Your task to perform on an android device: Go to location settings Image 0: 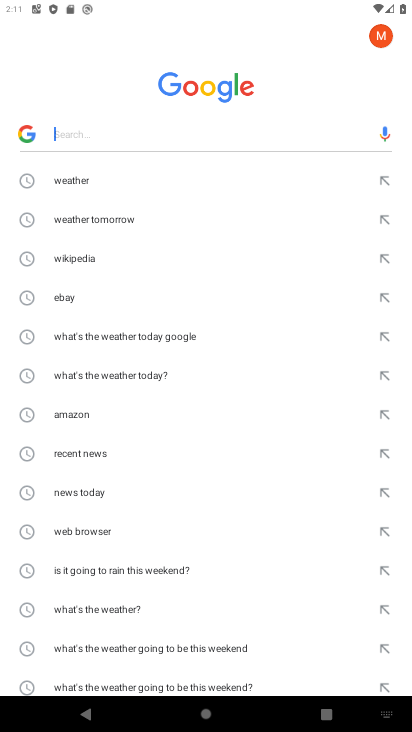
Step 0: press home button
Your task to perform on an android device: Go to location settings Image 1: 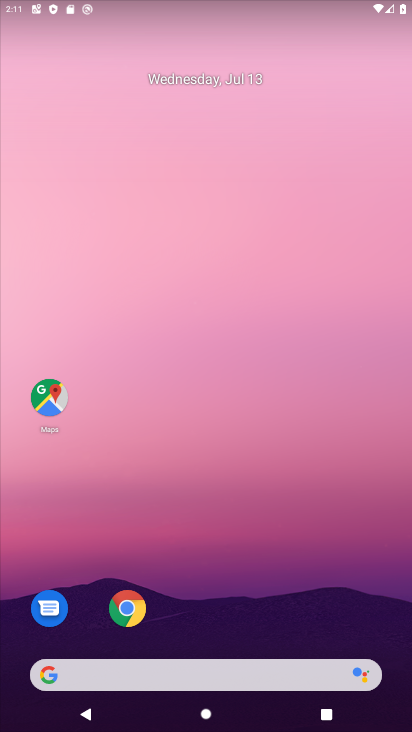
Step 1: drag from (145, 392) to (144, 128)
Your task to perform on an android device: Go to location settings Image 2: 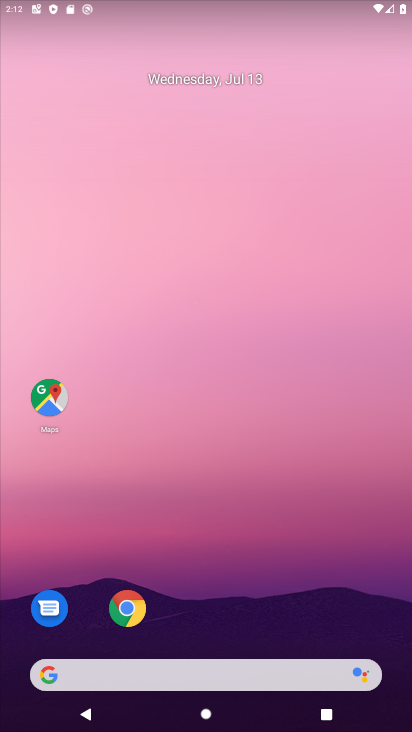
Step 2: click (225, 66)
Your task to perform on an android device: Go to location settings Image 3: 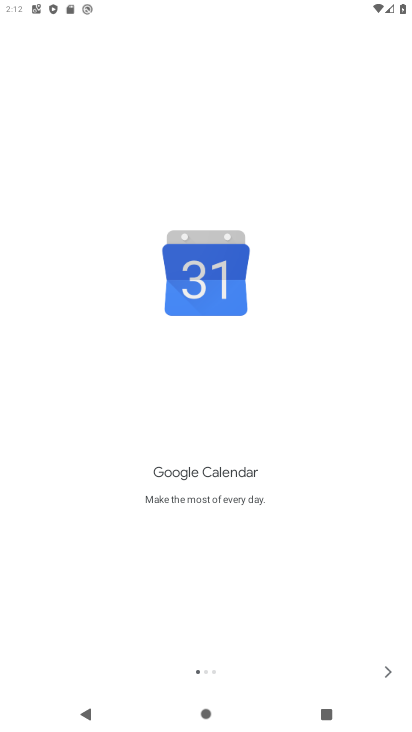
Step 3: press home button
Your task to perform on an android device: Go to location settings Image 4: 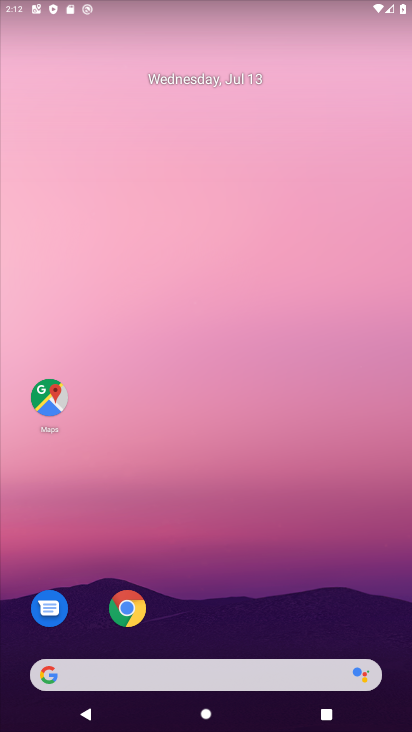
Step 4: drag from (225, 557) to (190, 145)
Your task to perform on an android device: Go to location settings Image 5: 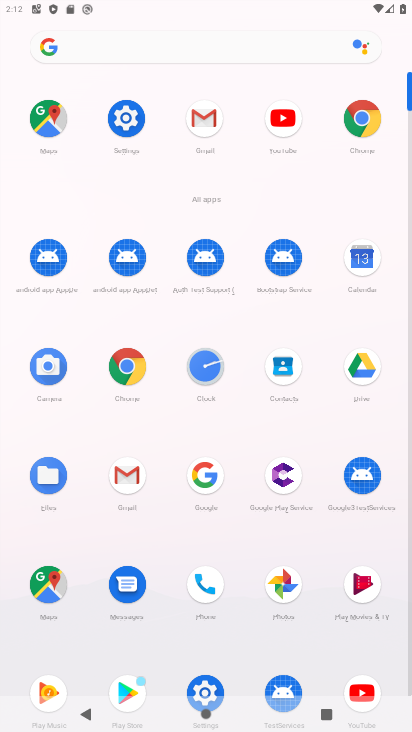
Step 5: click (206, 680)
Your task to perform on an android device: Go to location settings Image 6: 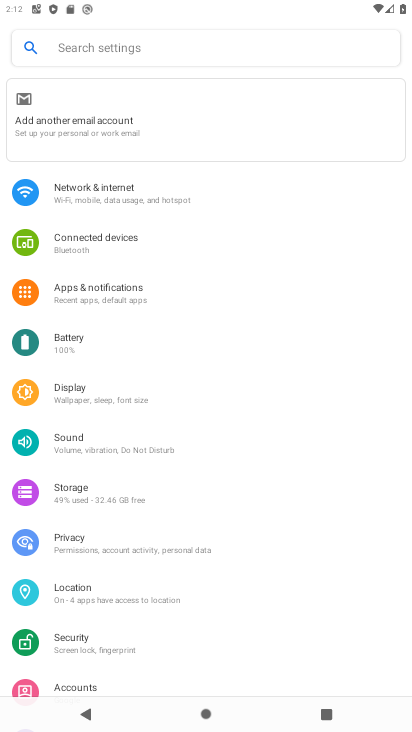
Step 6: click (90, 593)
Your task to perform on an android device: Go to location settings Image 7: 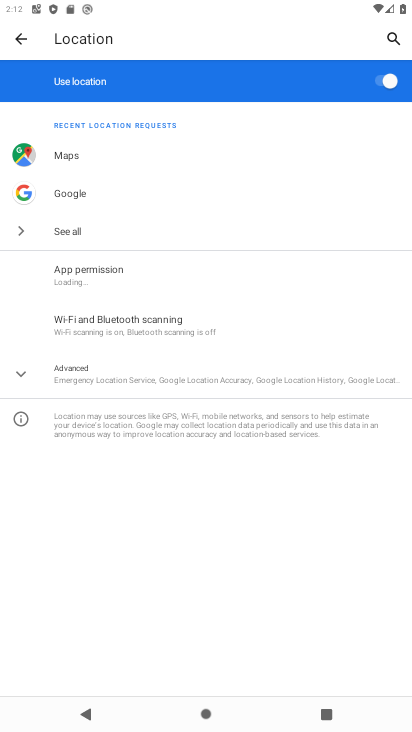
Step 7: task complete